Your task to perform on an android device: toggle priority inbox in the gmail app Image 0: 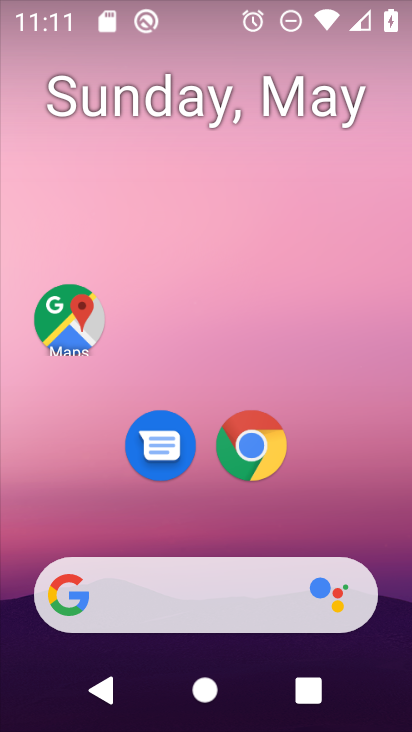
Step 0: drag from (229, 614) to (314, 63)
Your task to perform on an android device: toggle priority inbox in the gmail app Image 1: 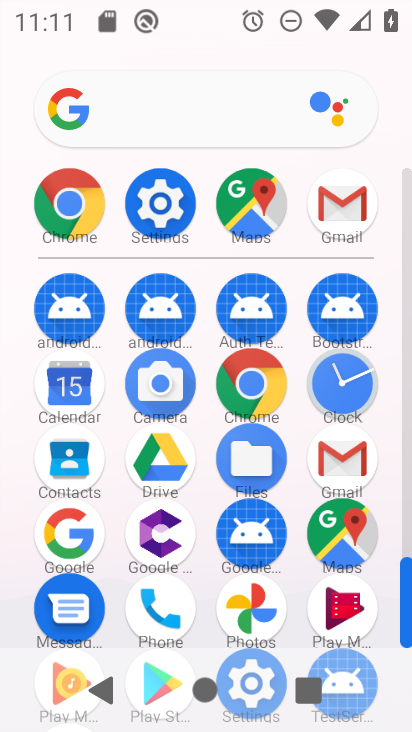
Step 1: click (351, 464)
Your task to perform on an android device: toggle priority inbox in the gmail app Image 2: 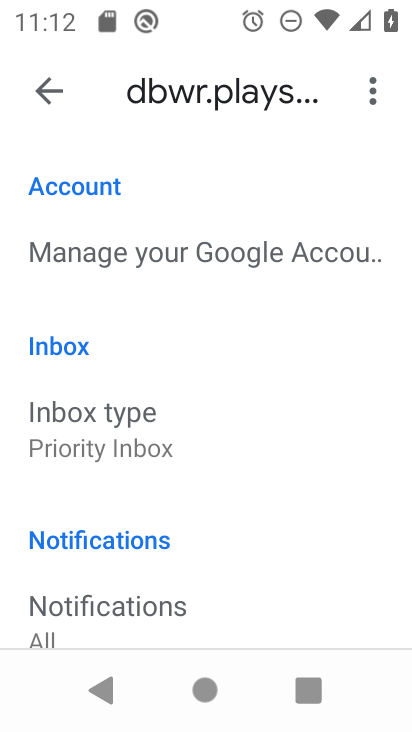
Step 2: click (149, 445)
Your task to perform on an android device: toggle priority inbox in the gmail app Image 3: 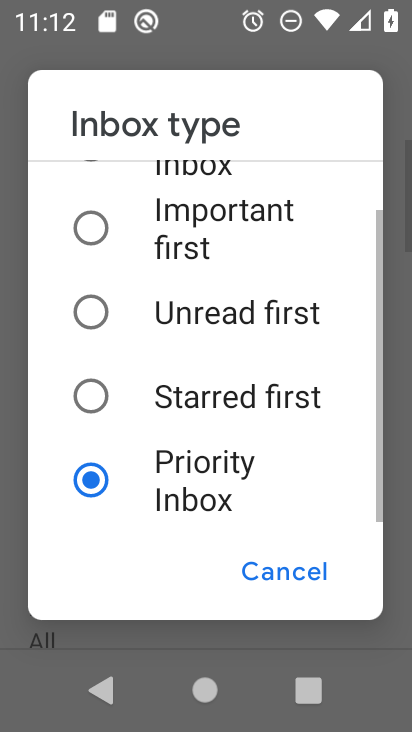
Step 3: click (98, 236)
Your task to perform on an android device: toggle priority inbox in the gmail app Image 4: 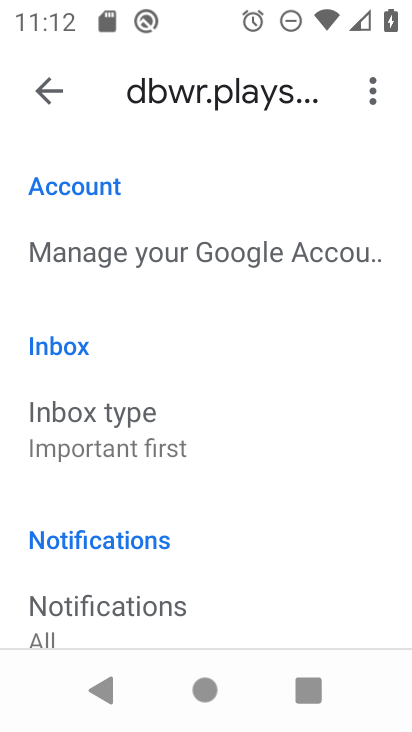
Step 4: task complete